Your task to perform on an android device: star an email in the gmail app Image 0: 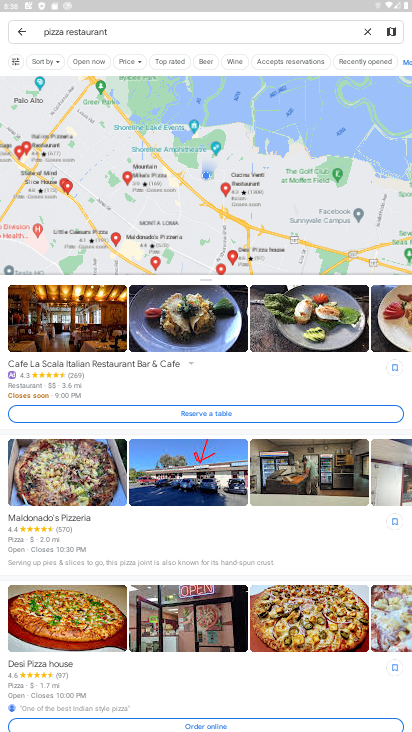
Step 0: press home button
Your task to perform on an android device: star an email in the gmail app Image 1: 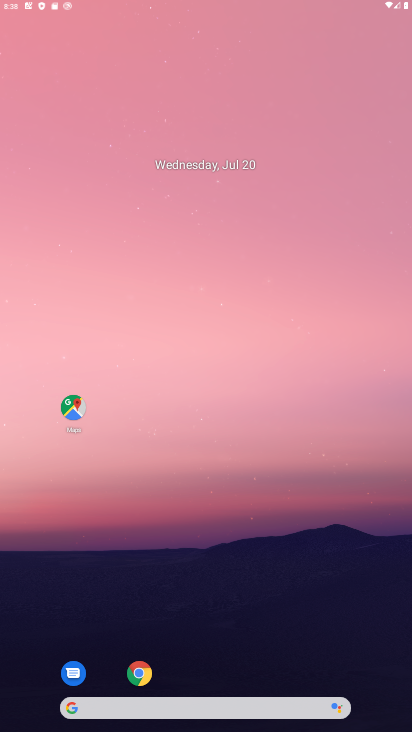
Step 1: drag from (169, 648) to (225, 11)
Your task to perform on an android device: star an email in the gmail app Image 2: 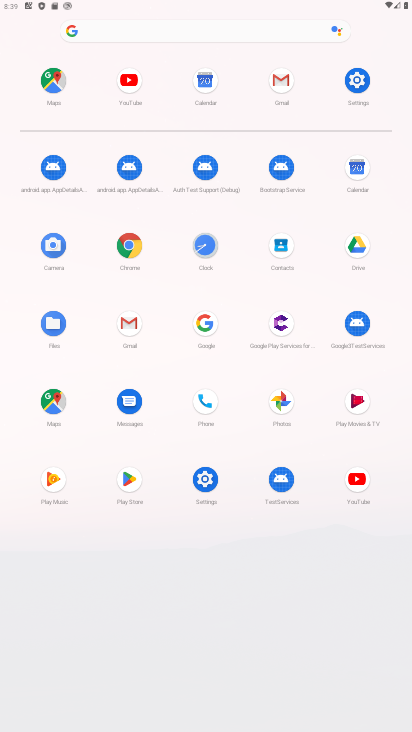
Step 2: click (126, 322)
Your task to perform on an android device: star an email in the gmail app Image 3: 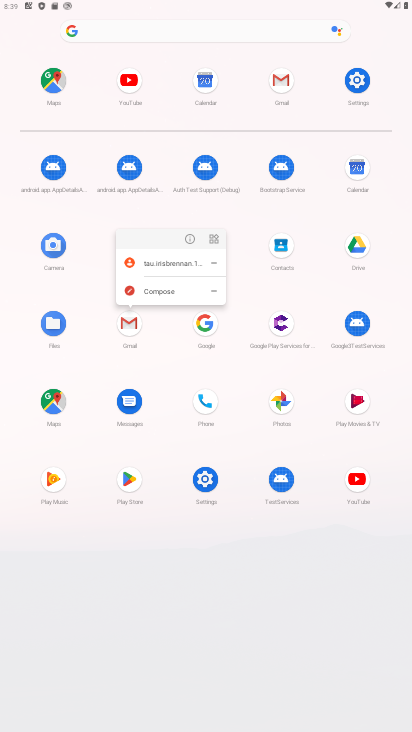
Step 3: click (189, 231)
Your task to perform on an android device: star an email in the gmail app Image 4: 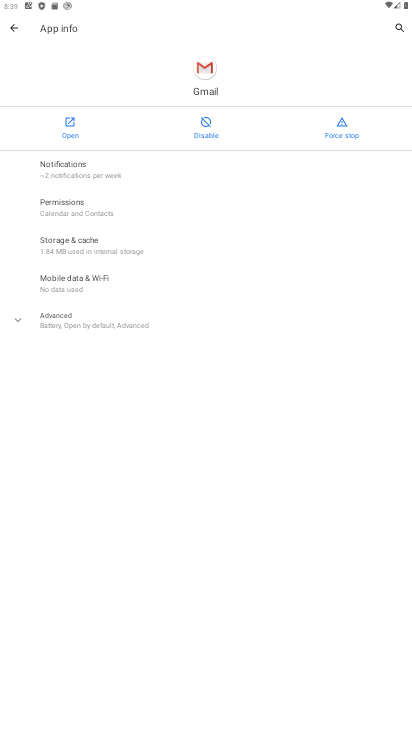
Step 4: click (64, 125)
Your task to perform on an android device: star an email in the gmail app Image 5: 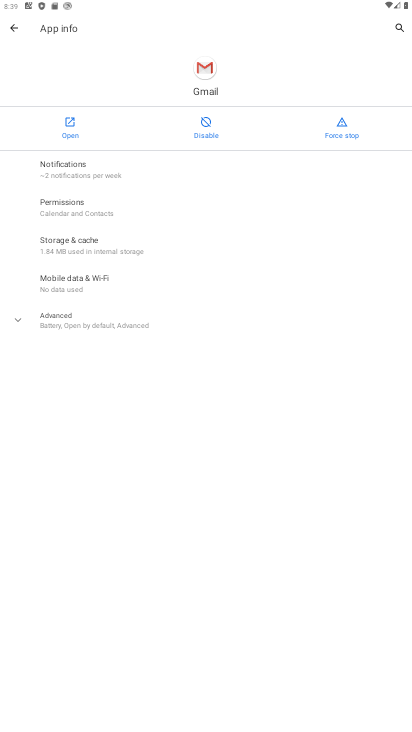
Step 5: click (64, 124)
Your task to perform on an android device: star an email in the gmail app Image 6: 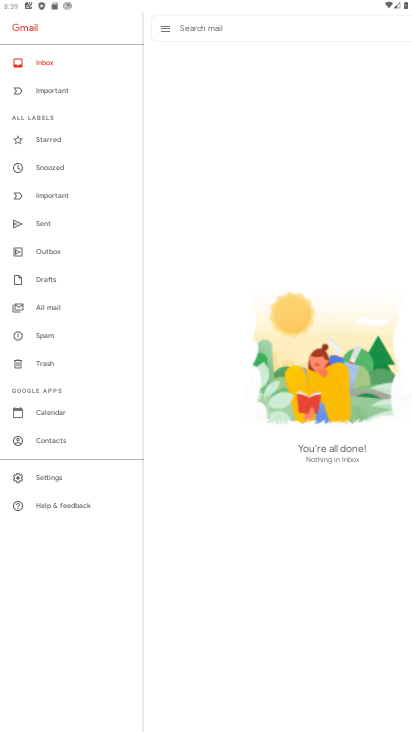
Step 6: click (227, 77)
Your task to perform on an android device: star an email in the gmail app Image 7: 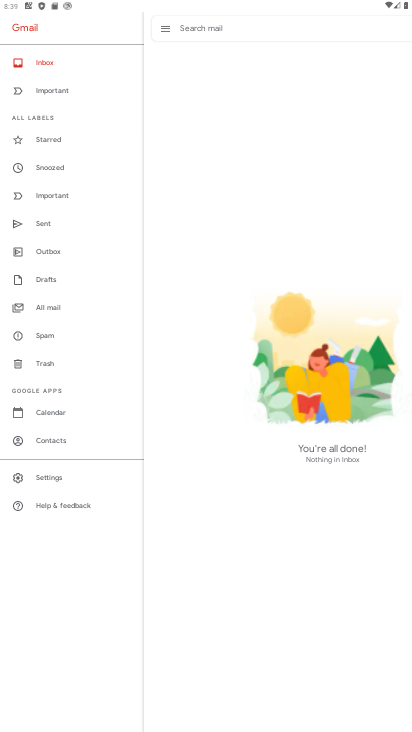
Step 7: task complete